Your task to perform on an android device: turn off notifications in google photos Image 0: 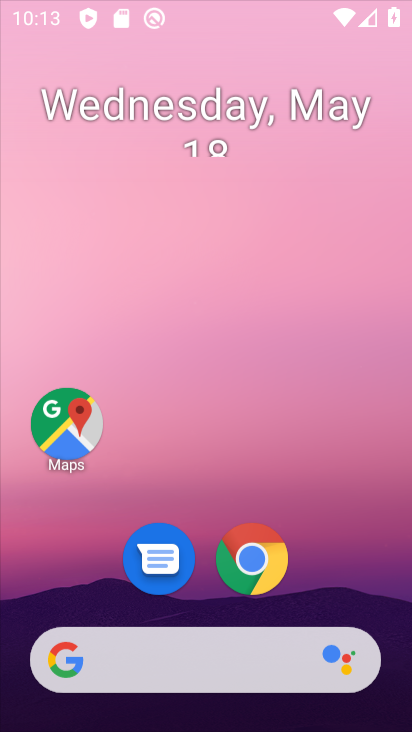
Step 0: click (247, 552)
Your task to perform on an android device: turn off notifications in google photos Image 1: 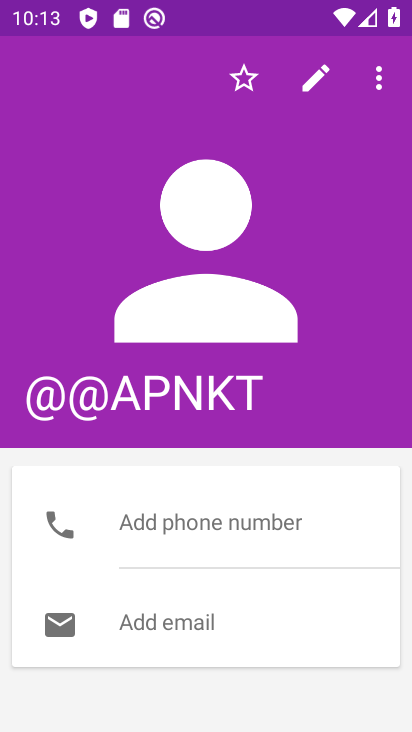
Step 1: press home button
Your task to perform on an android device: turn off notifications in google photos Image 2: 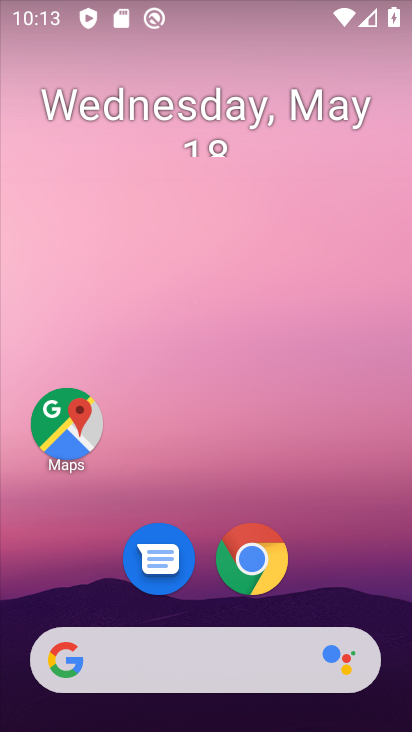
Step 2: drag from (191, 610) to (211, 165)
Your task to perform on an android device: turn off notifications in google photos Image 3: 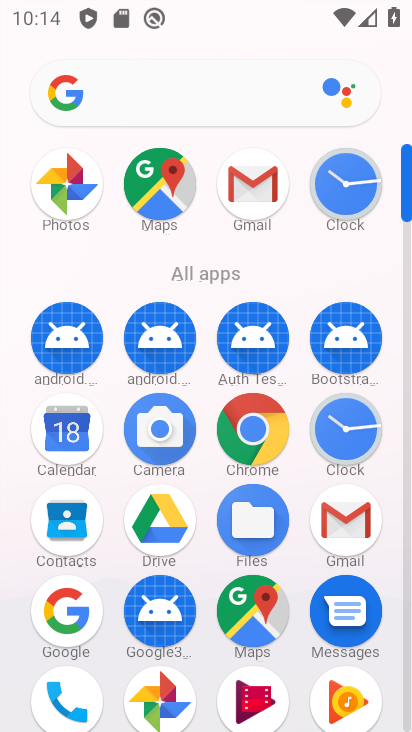
Step 3: click (167, 702)
Your task to perform on an android device: turn off notifications in google photos Image 4: 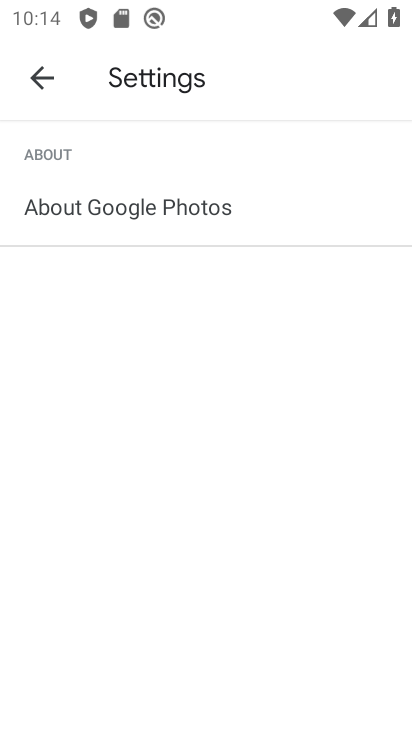
Step 4: click (180, 205)
Your task to perform on an android device: turn off notifications in google photos Image 5: 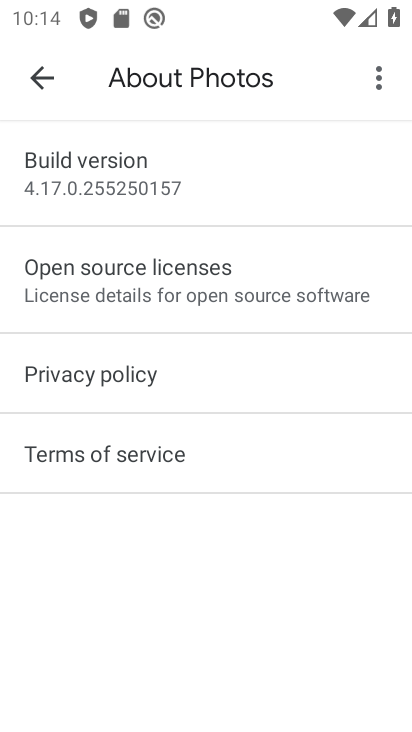
Step 5: click (40, 71)
Your task to perform on an android device: turn off notifications in google photos Image 6: 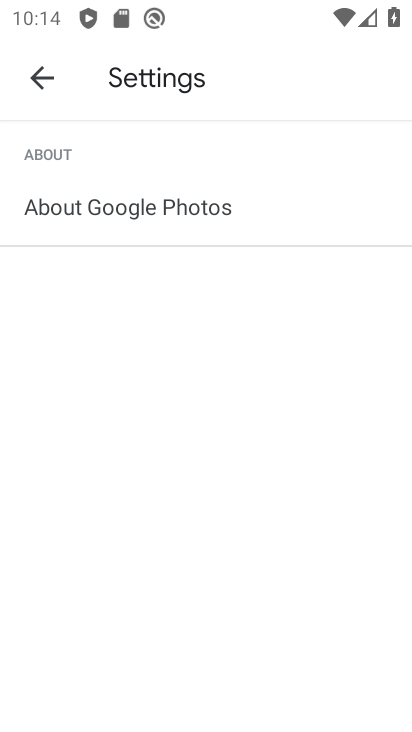
Step 6: click (11, 71)
Your task to perform on an android device: turn off notifications in google photos Image 7: 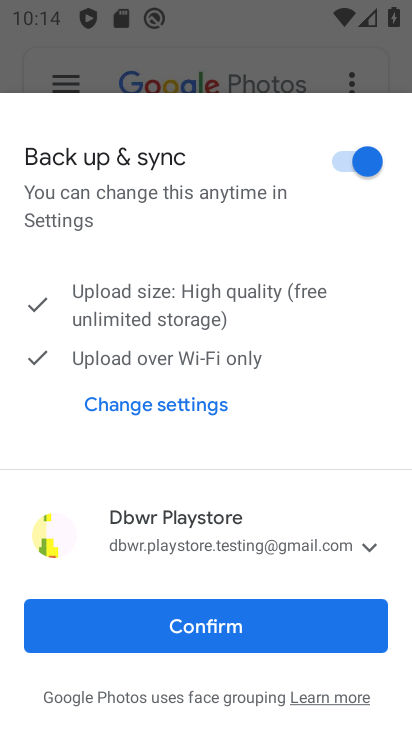
Step 7: click (241, 647)
Your task to perform on an android device: turn off notifications in google photos Image 8: 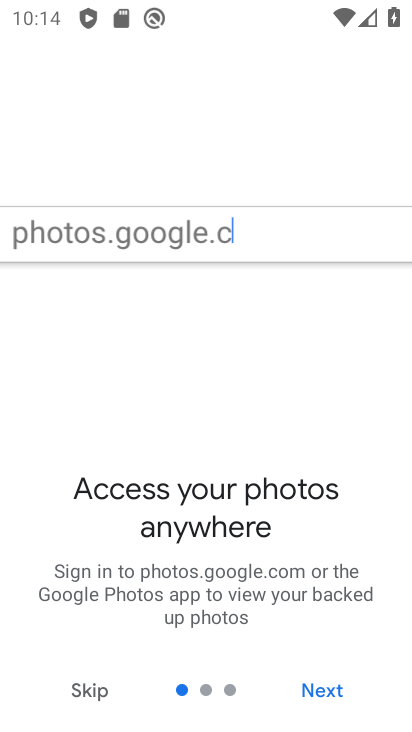
Step 8: click (319, 693)
Your task to perform on an android device: turn off notifications in google photos Image 9: 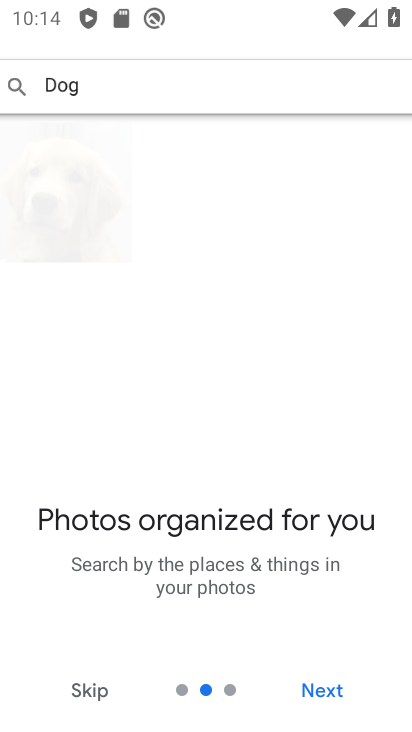
Step 9: click (296, 691)
Your task to perform on an android device: turn off notifications in google photos Image 10: 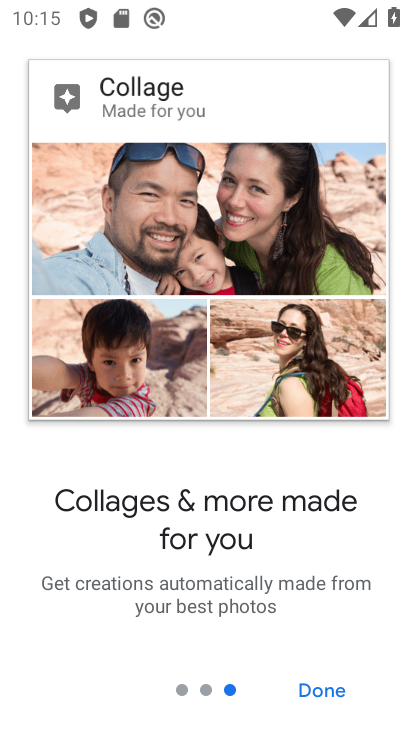
Step 10: click (333, 693)
Your task to perform on an android device: turn off notifications in google photos Image 11: 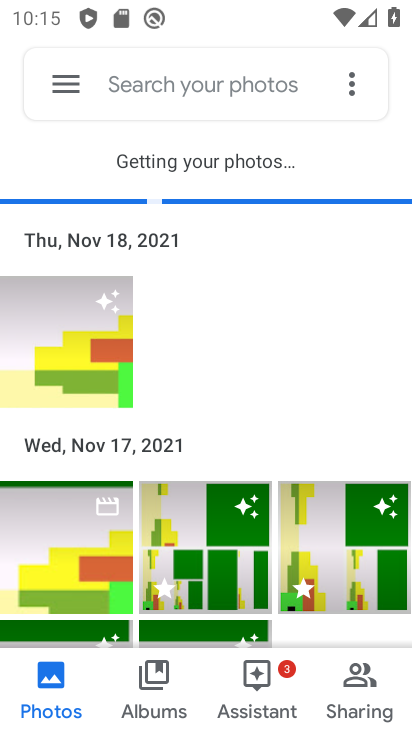
Step 11: click (60, 75)
Your task to perform on an android device: turn off notifications in google photos Image 12: 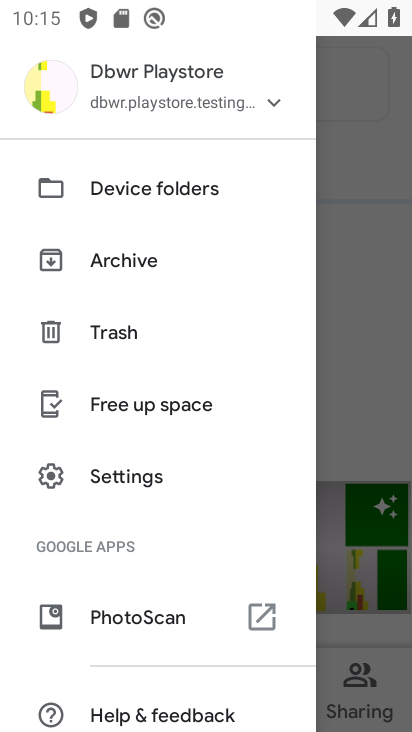
Step 12: click (132, 475)
Your task to perform on an android device: turn off notifications in google photos Image 13: 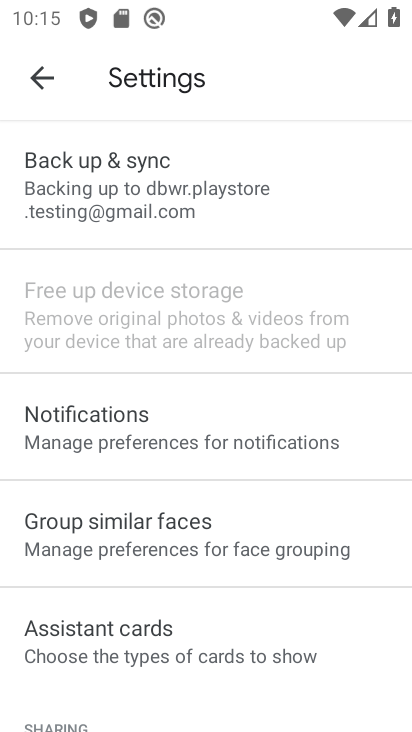
Step 13: click (137, 421)
Your task to perform on an android device: turn off notifications in google photos Image 14: 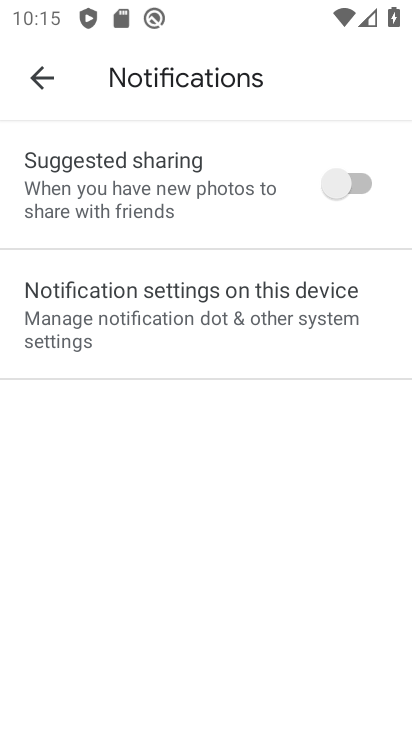
Step 14: task complete